Your task to perform on an android device: change alarm snooze length Image 0: 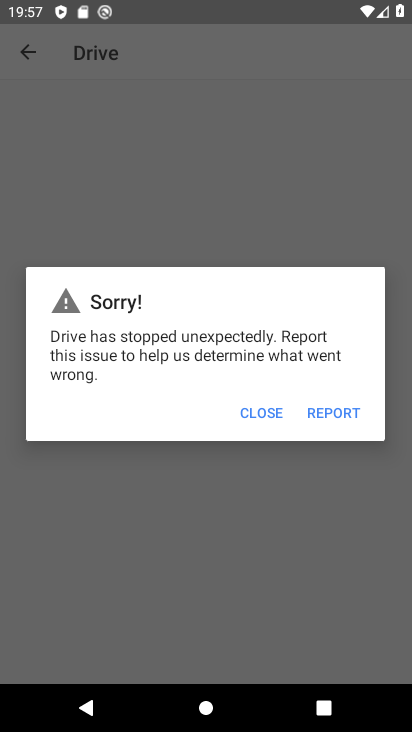
Step 0: press home button
Your task to perform on an android device: change alarm snooze length Image 1: 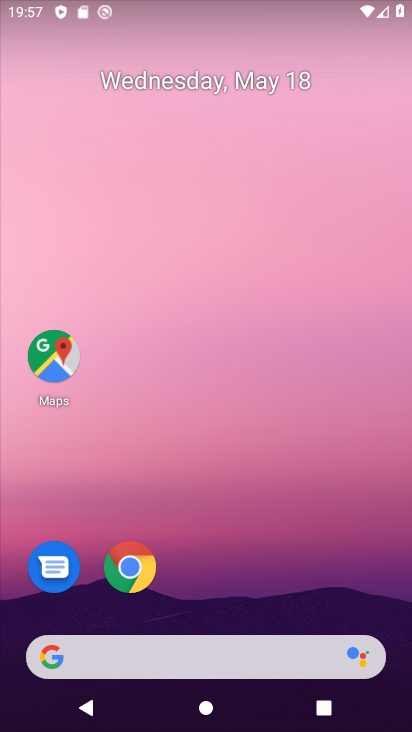
Step 1: drag from (157, 610) to (153, 227)
Your task to perform on an android device: change alarm snooze length Image 2: 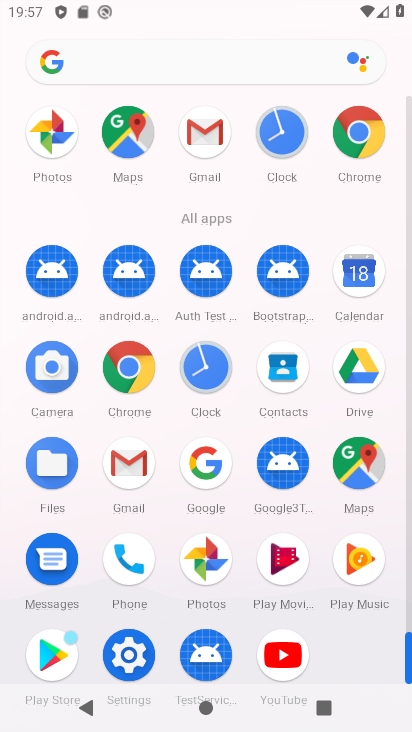
Step 2: click (207, 354)
Your task to perform on an android device: change alarm snooze length Image 3: 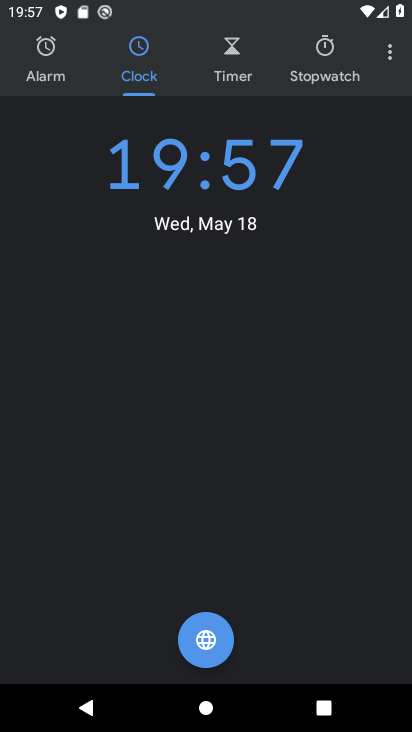
Step 3: click (390, 53)
Your task to perform on an android device: change alarm snooze length Image 4: 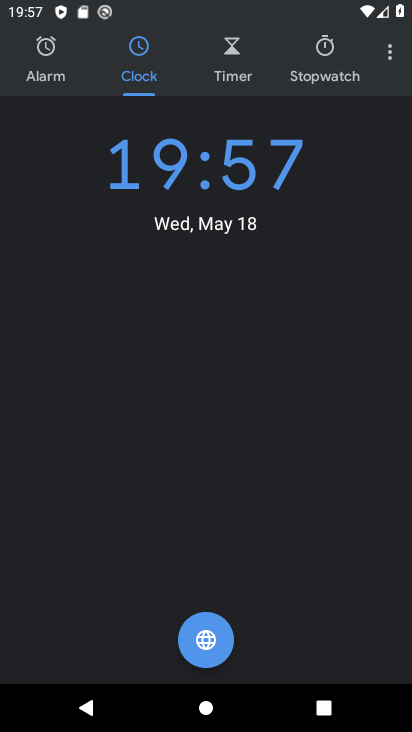
Step 4: click (391, 53)
Your task to perform on an android device: change alarm snooze length Image 5: 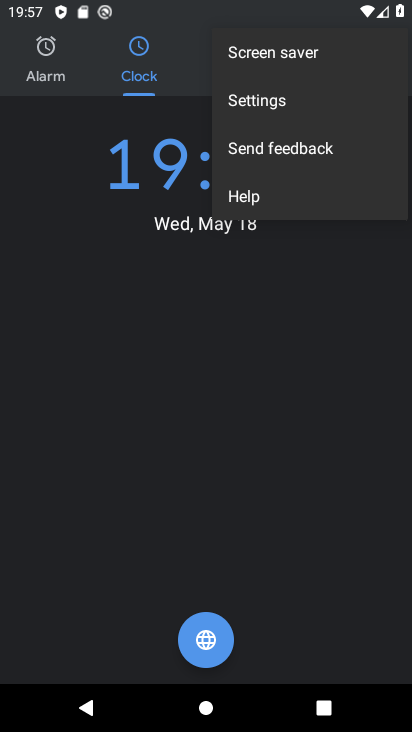
Step 5: click (287, 96)
Your task to perform on an android device: change alarm snooze length Image 6: 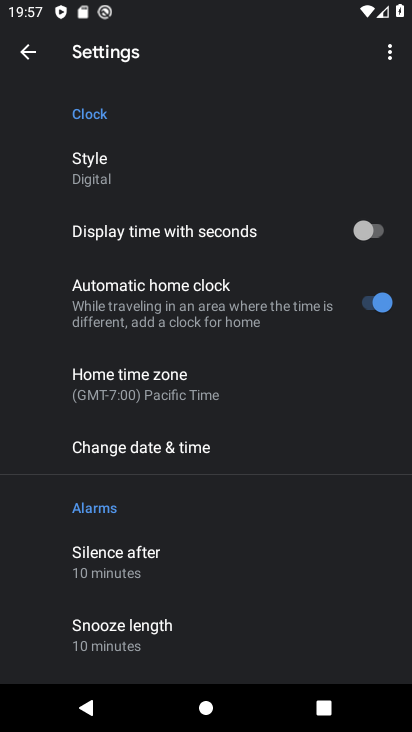
Step 6: click (114, 626)
Your task to perform on an android device: change alarm snooze length Image 7: 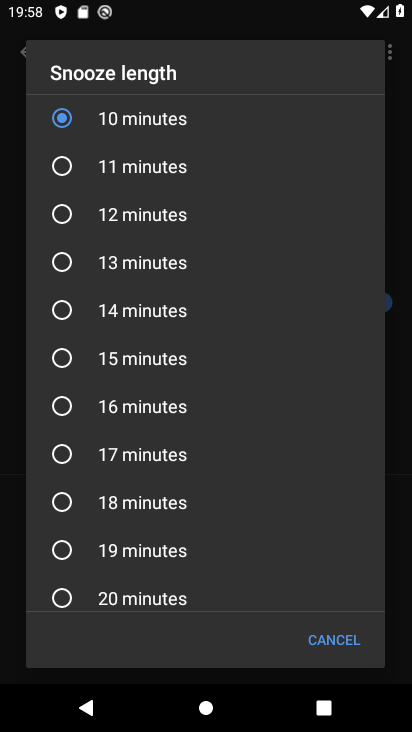
Step 7: click (132, 168)
Your task to perform on an android device: change alarm snooze length Image 8: 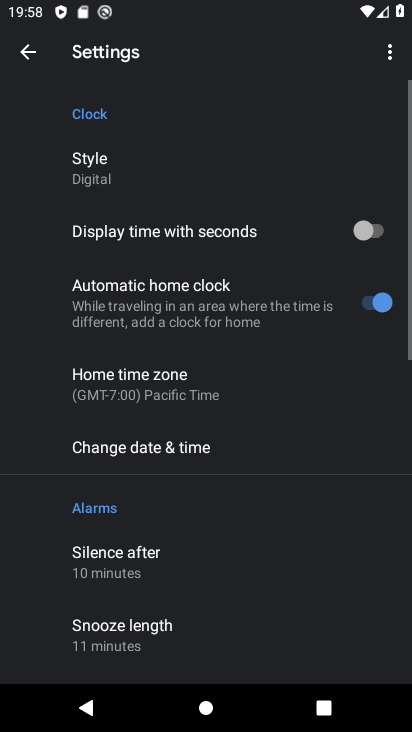
Step 8: task complete